Your task to perform on an android device: toggle location history Image 0: 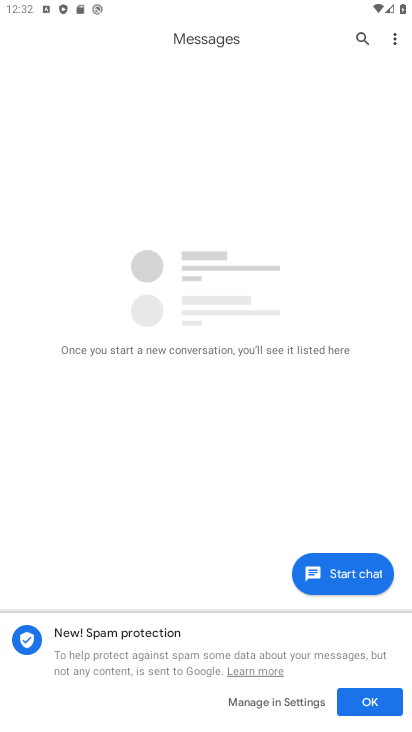
Step 0: press home button
Your task to perform on an android device: toggle location history Image 1: 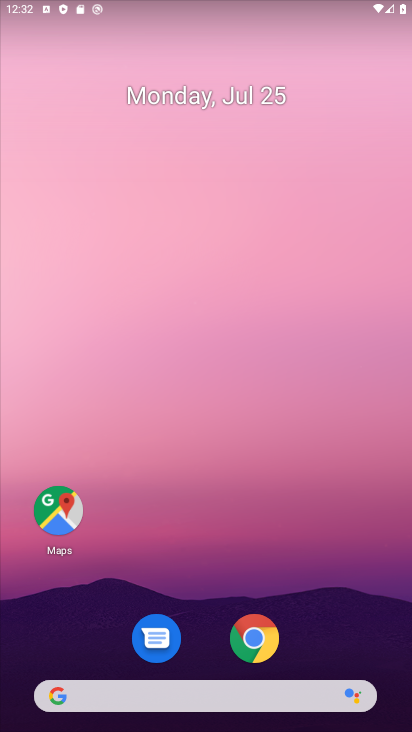
Step 1: drag from (209, 668) to (184, 48)
Your task to perform on an android device: toggle location history Image 2: 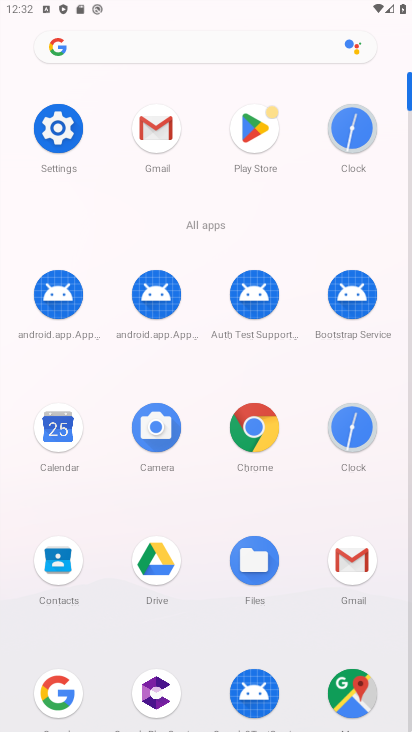
Step 2: click (68, 115)
Your task to perform on an android device: toggle location history Image 3: 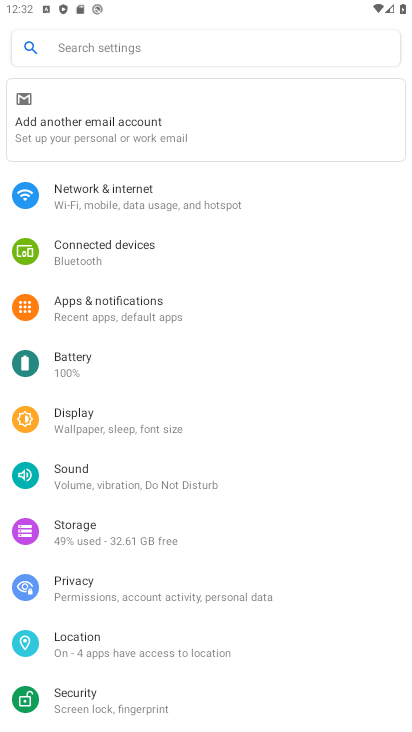
Step 3: click (82, 641)
Your task to perform on an android device: toggle location history Image 4: 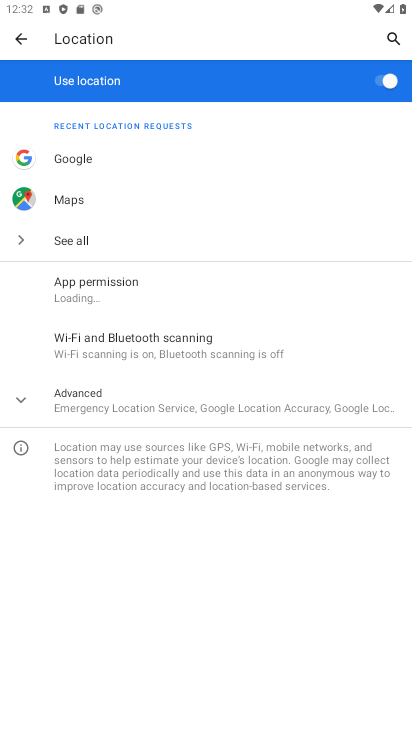
Step 4: click (188, 407)
Your task to perform on an android device: toggle location history Image 5: 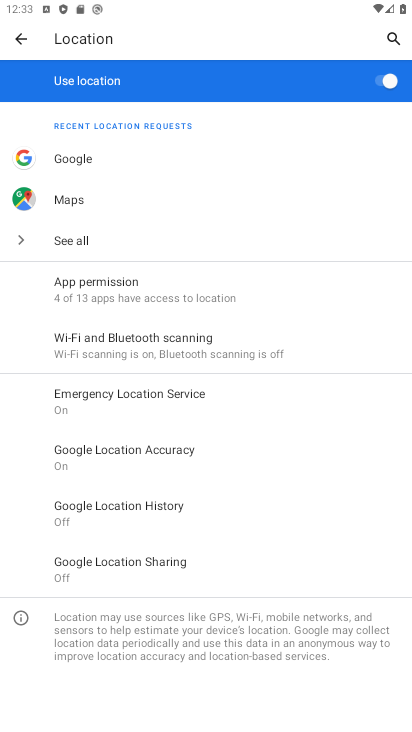
Step 5: click (142, 515)
Your task to perform on an android device: toggle location history Image 6: 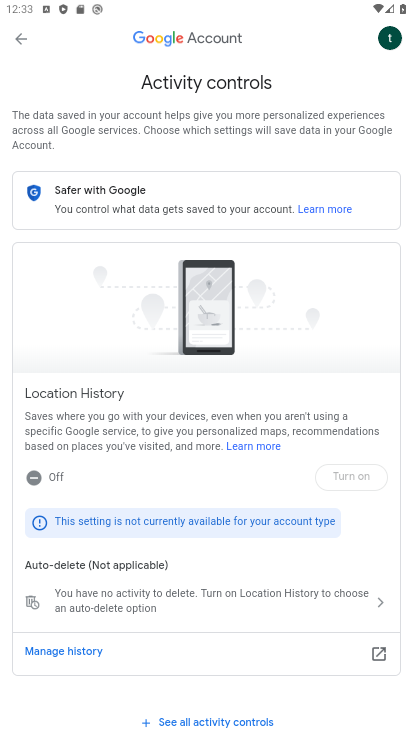
Step 6: task complete